Your task to perform on an android device: Go to internet settings Image 0: 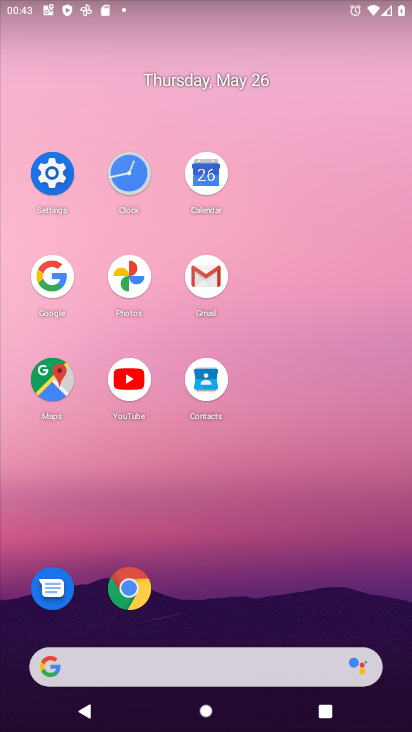
Step 0: click (40, 174)
Your task to perform on an android device: Go to internet settings Image 1: 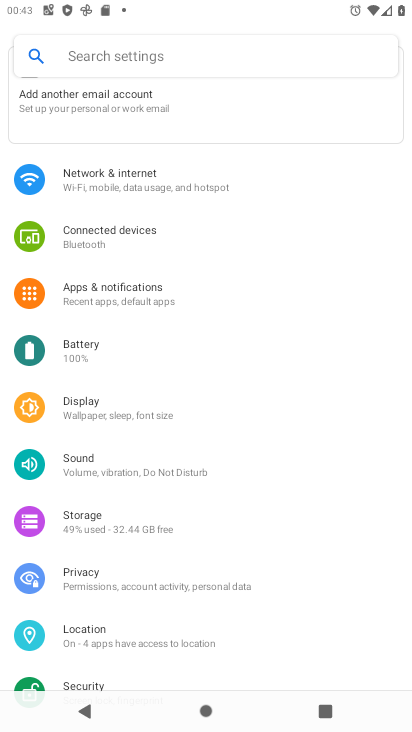
Step 1: click (146, 172)
Your task to perform on an android device: Go to internet settings Image 2: 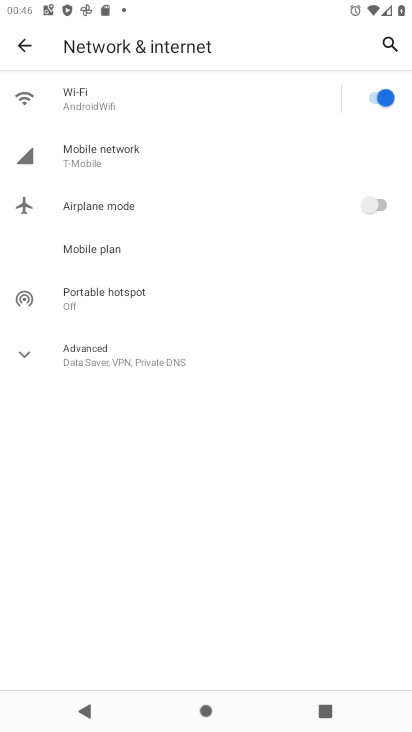
Step 2: task complete